Your task to perform on an android device: make emails show in primary in the gmail app Image 0: 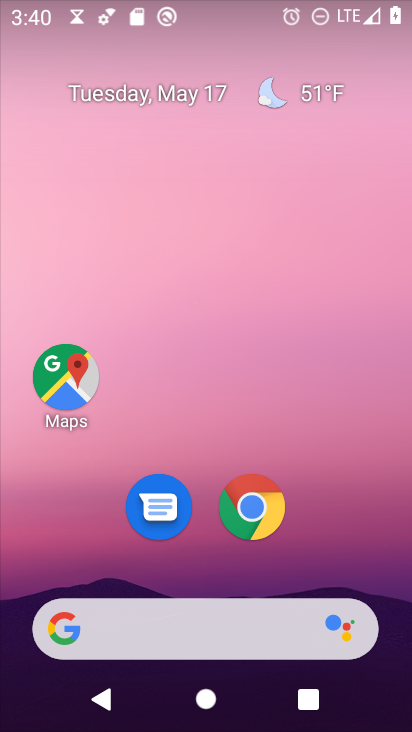
Step 0: drag from (359, 290) to (314, 26)
Your task to perform on an android device: make emails show in primary in the gmail app Image 1: 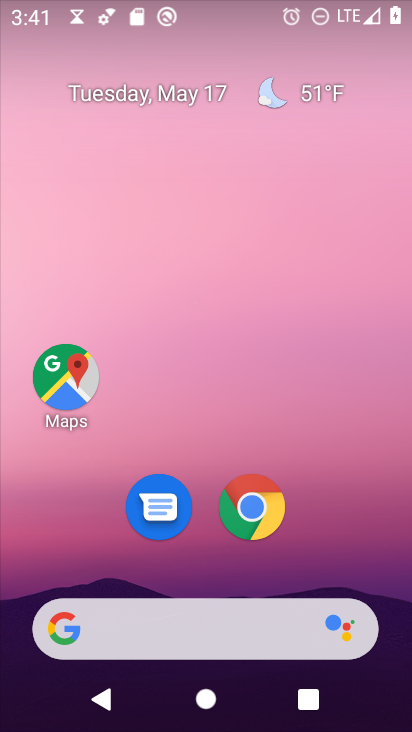
Step 1: drag from (334, 561) to (296, 0)
Your task to perform on an android device: make emails show in primary in the gmail app Image 2: 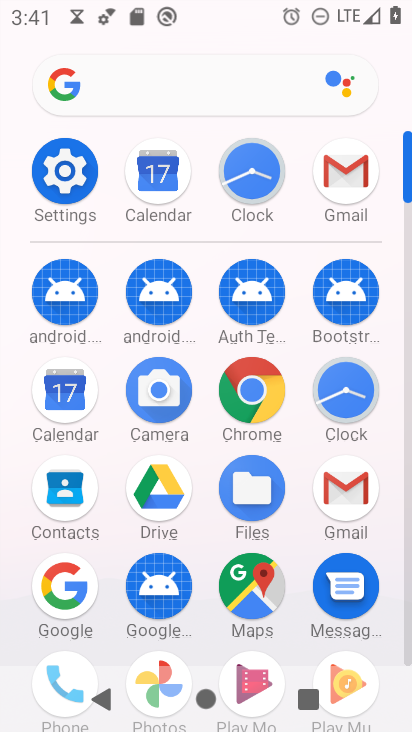
Step 2: click (347, 474)
Your task to perform on an android device: make emails show in primary in the gmail app Image 3: 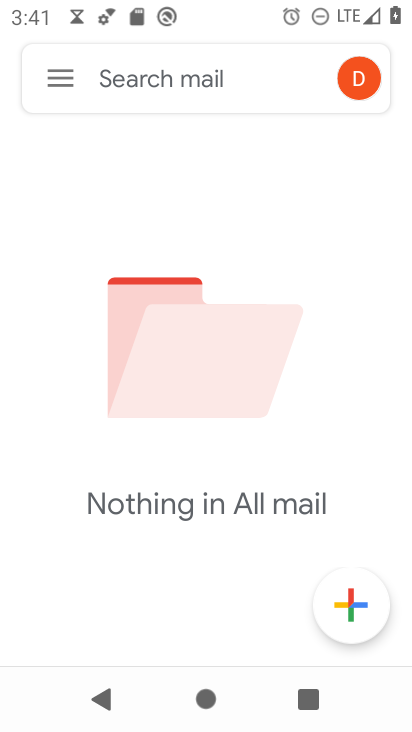
Step 3: click (51, 88)
Your task to perform on an android device: make emails show in primary in the gmail app Image 4: 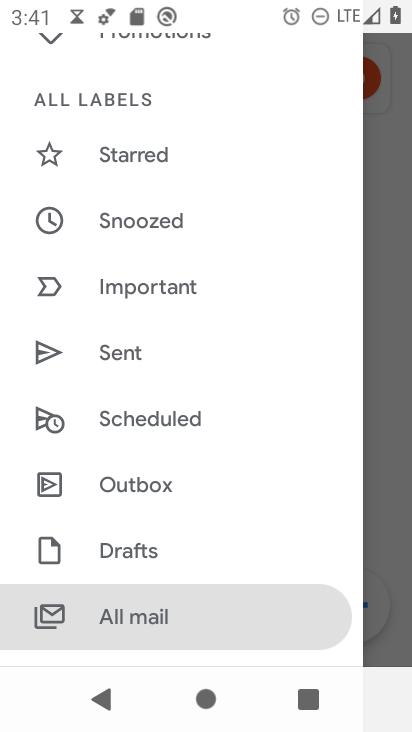
Step 4: drag from (231, 448) to (212, 46)
Your task to perform on an android device: make emails show in primary in the gmail app Image 5: 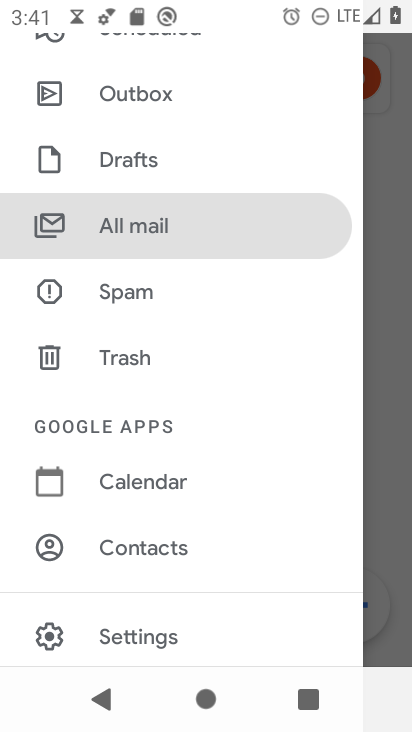
Step 5: click (177, 628)
Your task to perform on an android device: make emails show in primary in the gmail app Image 6: 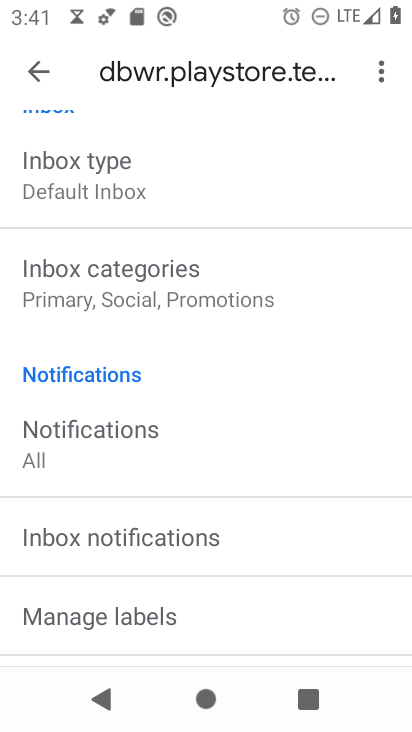
Step 6: click (93, 194)
Your task to perform on an android device: make emails show in primary in the gmail app Image 7: 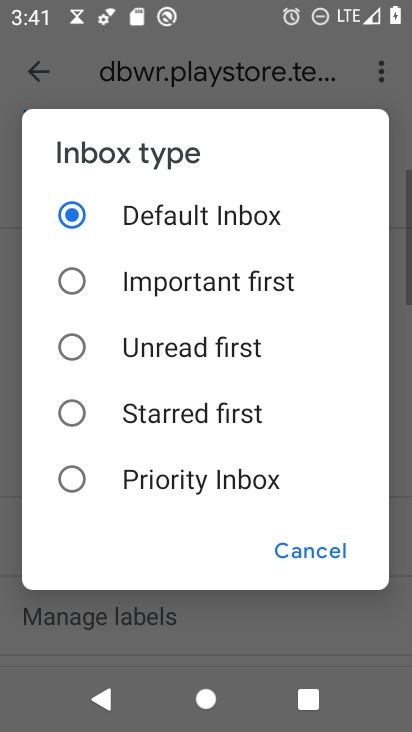
Step 7: click (169, 216)
Your task to perform on an android device: make emails show in primary in the gmail app Image 8: 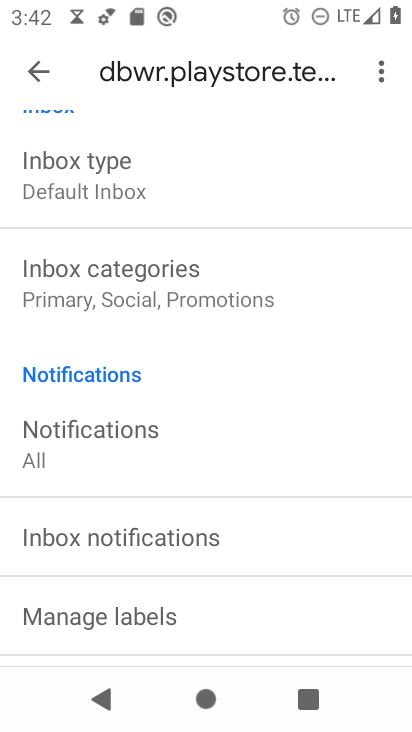
Step 8: task complete